Your task to perform on an android device: Open settings Image 0: 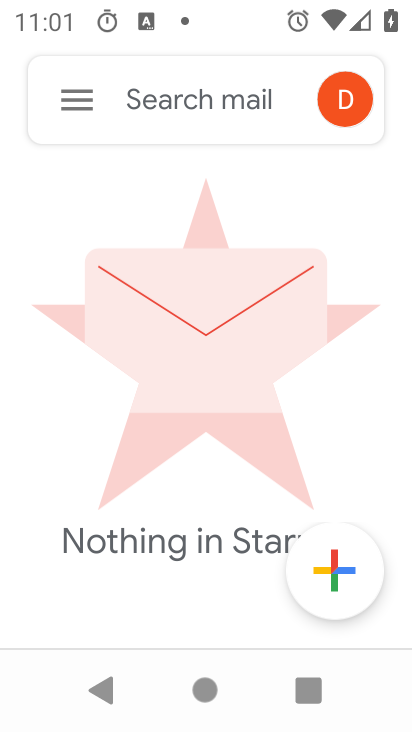
Step 0: press home button
Your task to perform on an android device: Open settings Image 1: 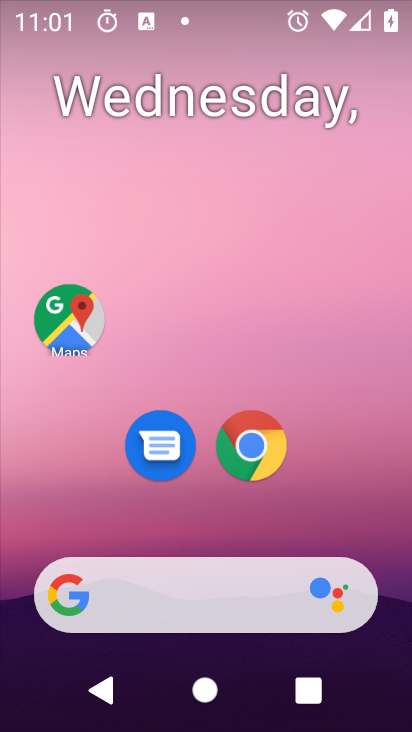
Step 1: drag from (349, 513) to (356, 0)
Your task to perform on an android device: Open settings Image 2: 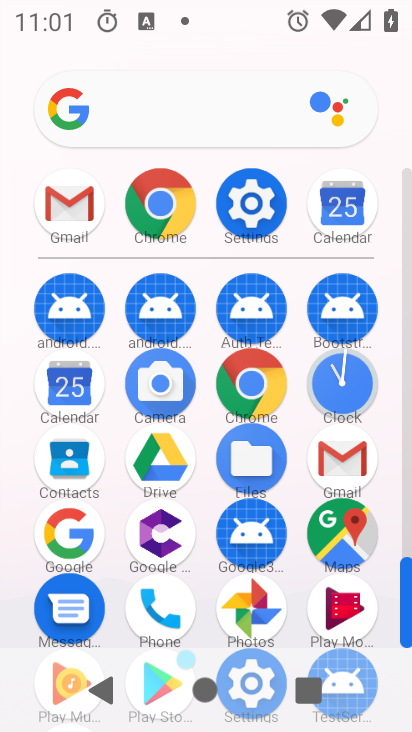
Step 2: click (258, 218)
Your task to perform on an android device: Open settings Image 3: 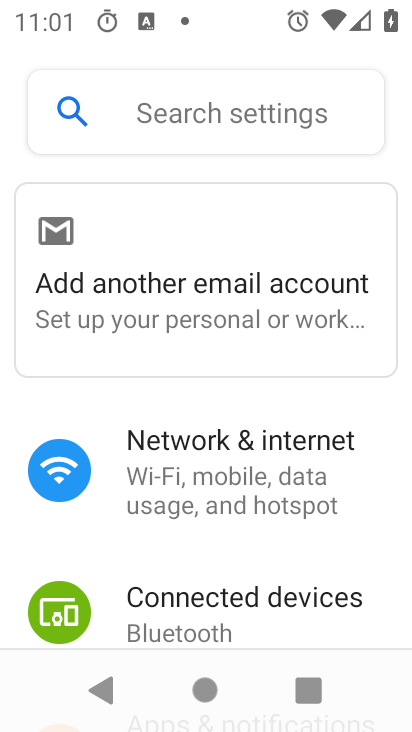
Step 3: task complete